Your task to perform on an android device: see creations saved in the google photos Image 0: 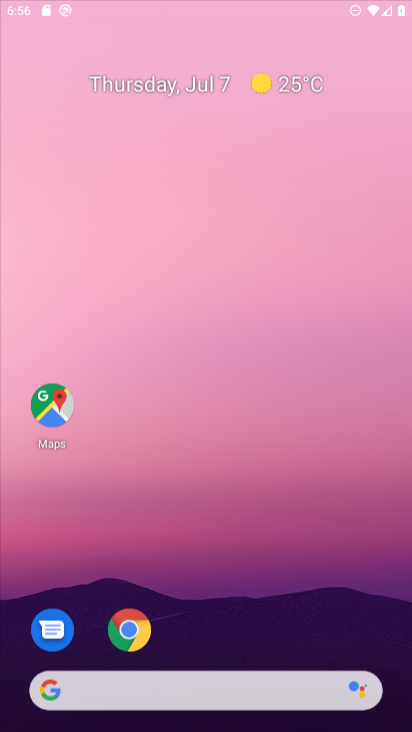
Step 0: drag from (165, 210) to (138, 186)
Your task to perform on an android device: see creations saved in the google photos Image 1: 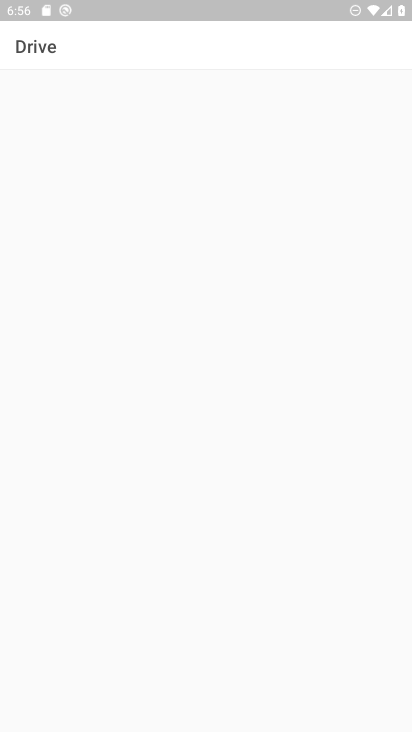
Step 1: press home button
Your task to perform on an android device: see creations saved in the google photos Image 2: 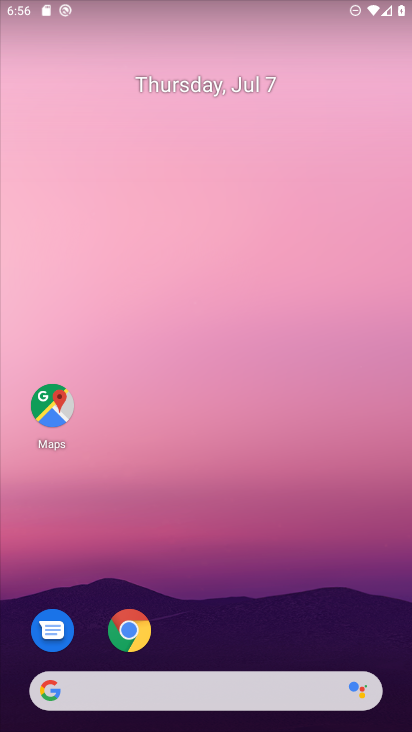
Step 2: drag from (236, 580) to (168, 4)
Your task to perform on an android device: see creations saved in the google photos Image 3: 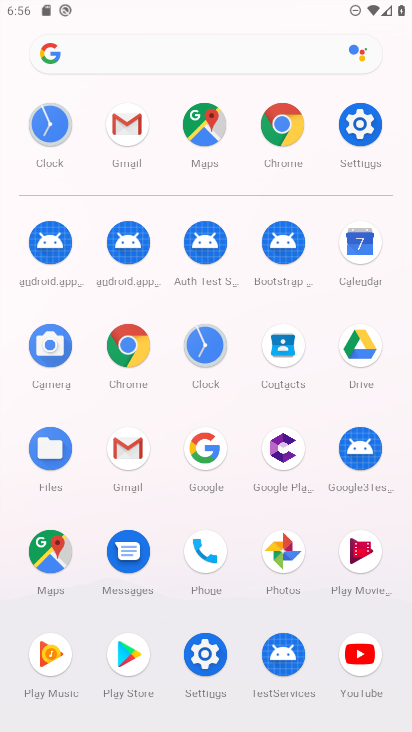
Step 3: click (283, 552)
Your task to perform on an android device: see creations saved in the google photos Image 4: 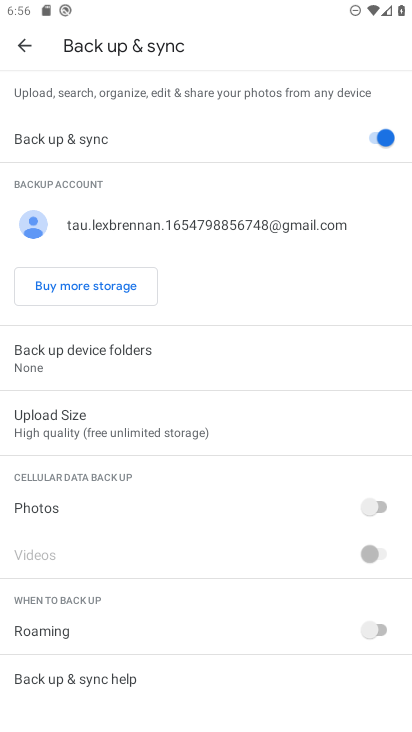
Step 4: click (26, 36)
Your task to perform on an android device: see creations saved in the google photos Image 5: 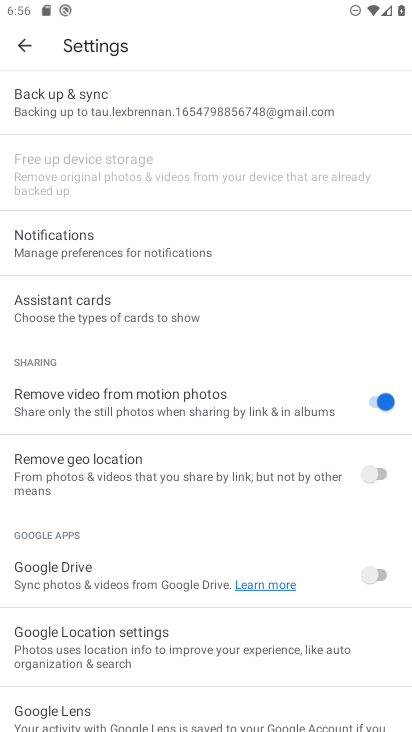
Step 5: click (24, 46)
Your task to perform on an android device: see creations saved in the google photos Image 6: 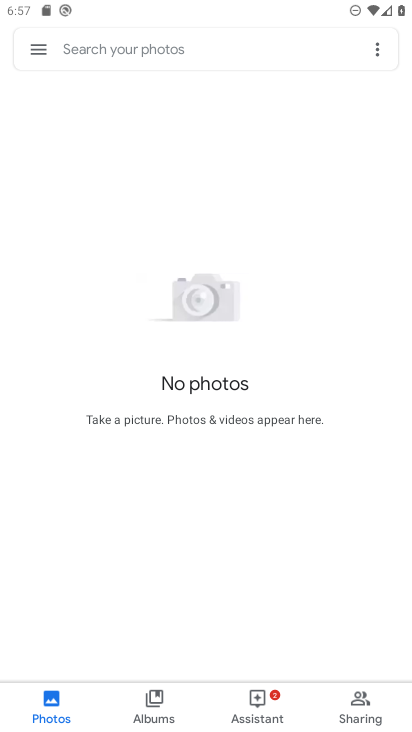
Step 6: click (176, 48)
Your task to perform on an android device: see creations saved in the google photos Image 7: 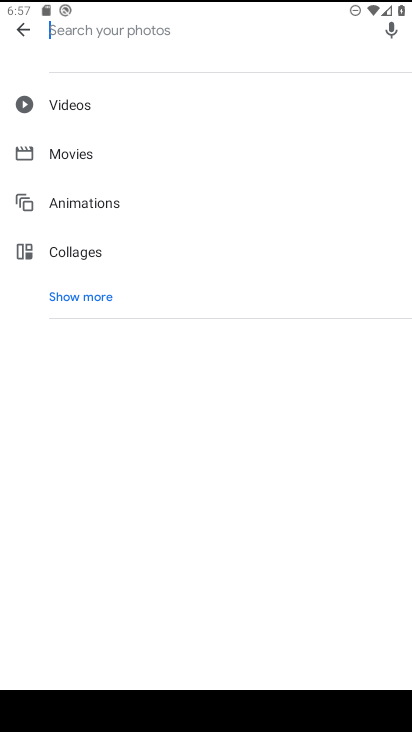
Step 7: click (63, 293)
Your task to perform on an android device: see creations saved in the google photos Image 8: 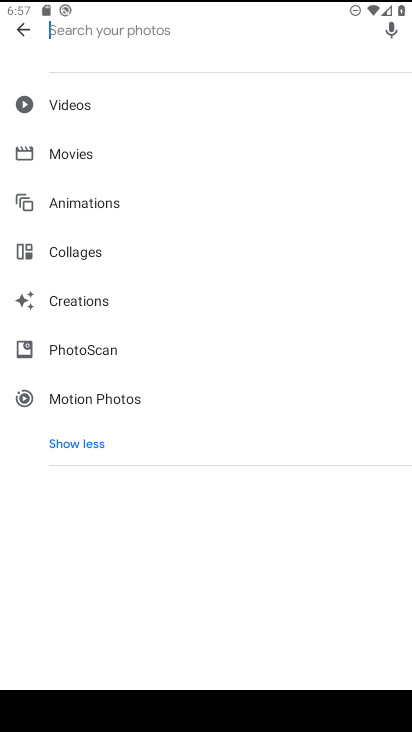
Step 8: click (66, 295)
Your task to perform on an android device: see creations saved in the google photos Image 9: 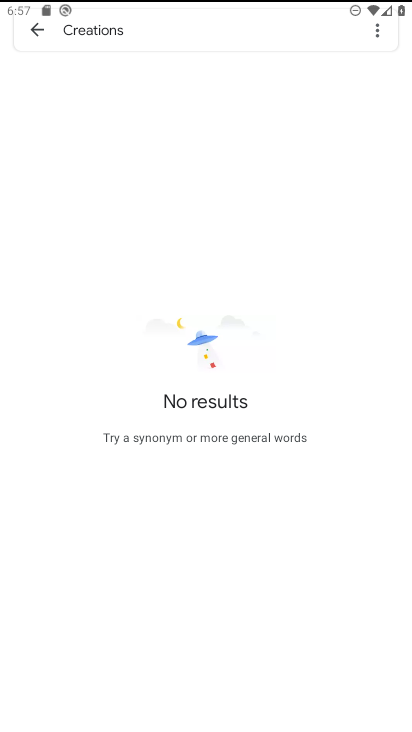
Step 9: task complete